Your task to perform on an android device: clear history in the chrome app Image 0: 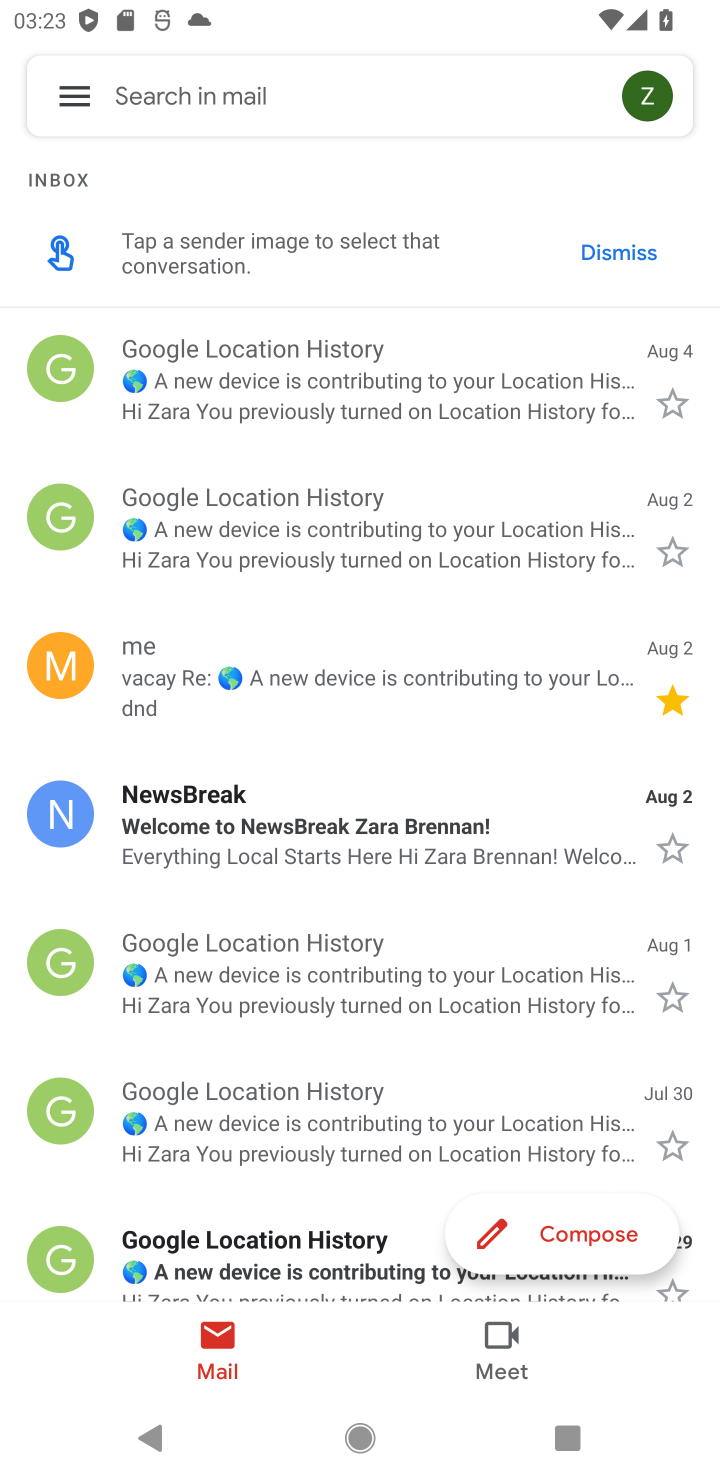
Step 0: press home button
Your task to perform on an android device: clear history in the chrome app Image 1: 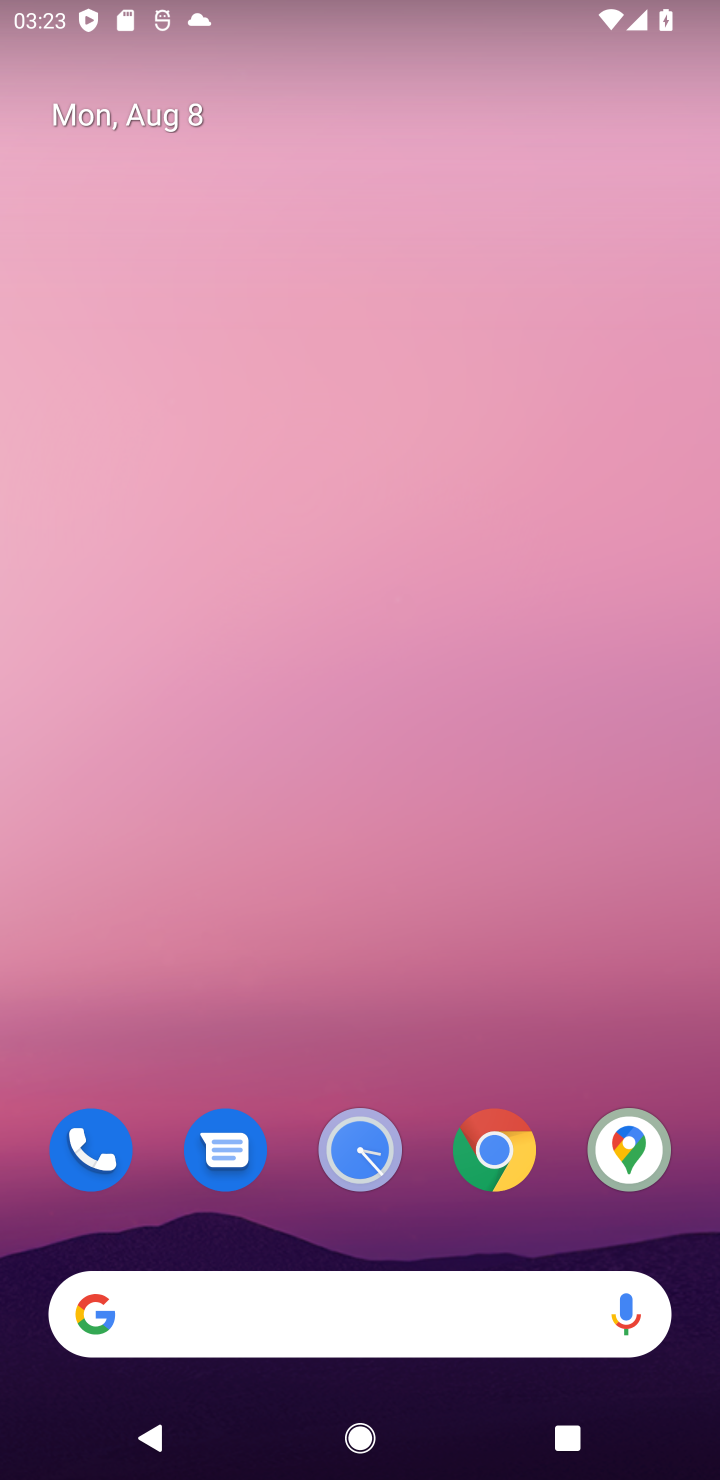
Step 1: click (477, 1130)
Your task to perform on an android device: clear history in the chrome app Image 2: 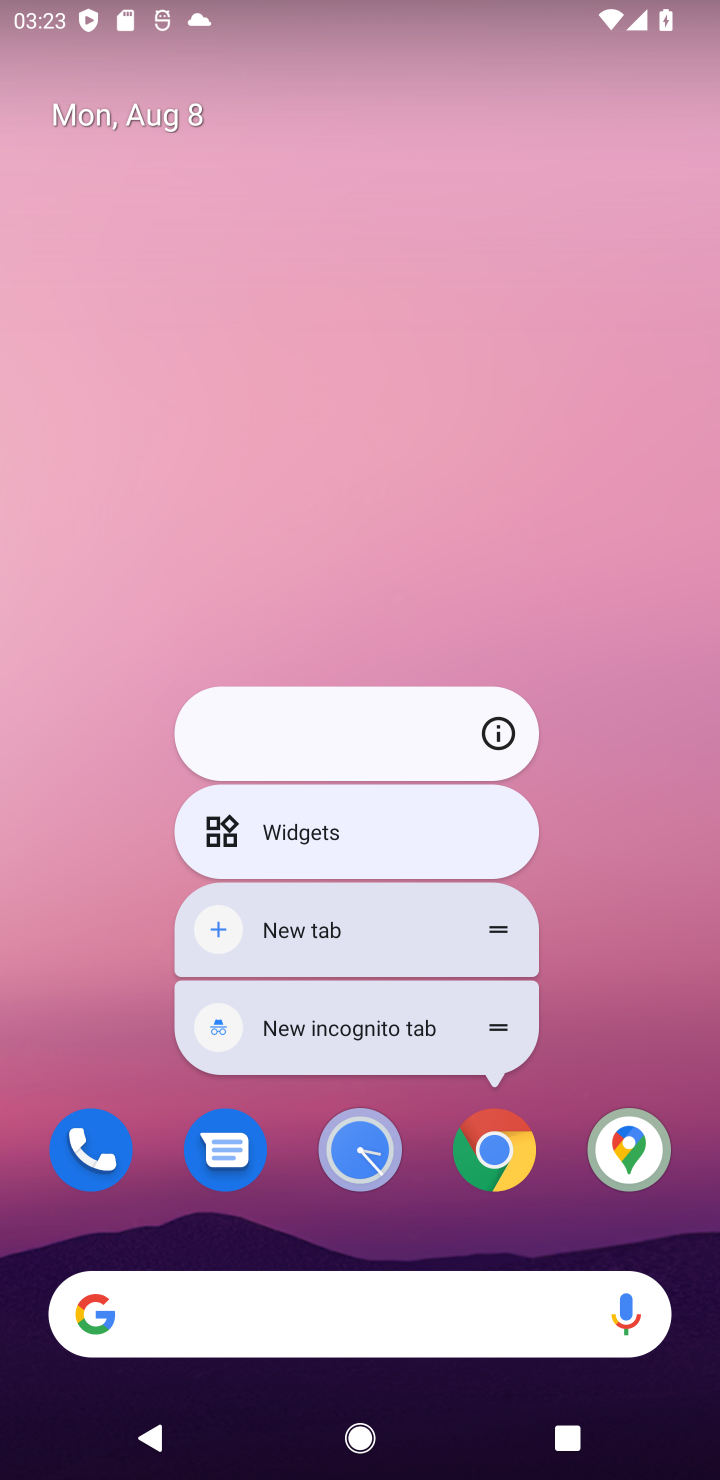
Step 2: click (477, 1130)
Your task to perform on an android device: clear history in the chrome app Image 3: 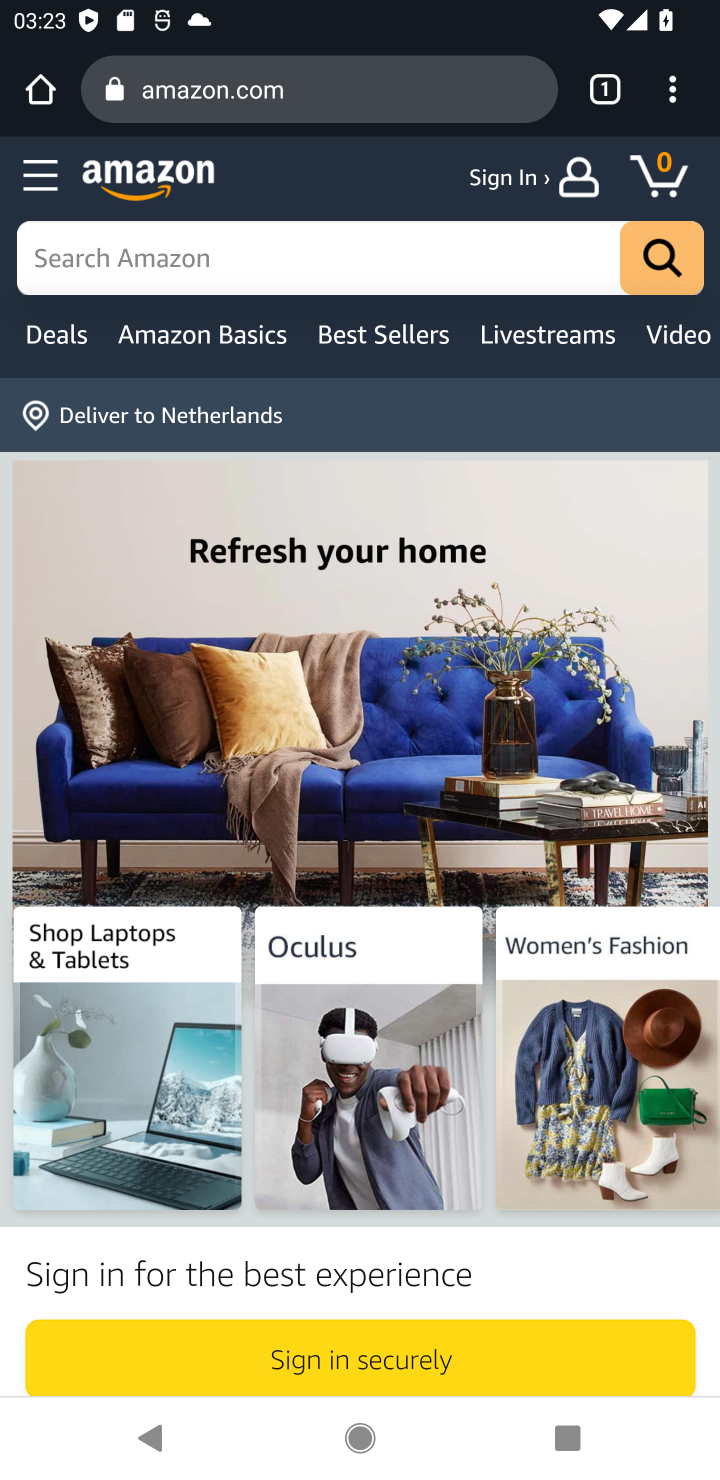
Step 3: task complete